Your task to perform on an android device: How big is the moon? Image 0: 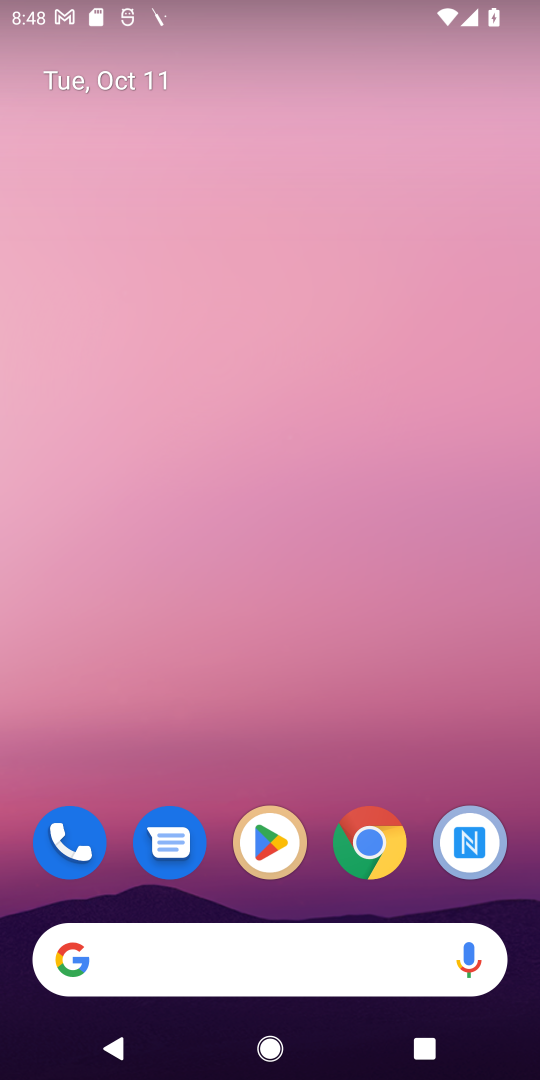
Step 0: click (362, 851)
Your task to perform on an android device: How big is the moon? Image 1: 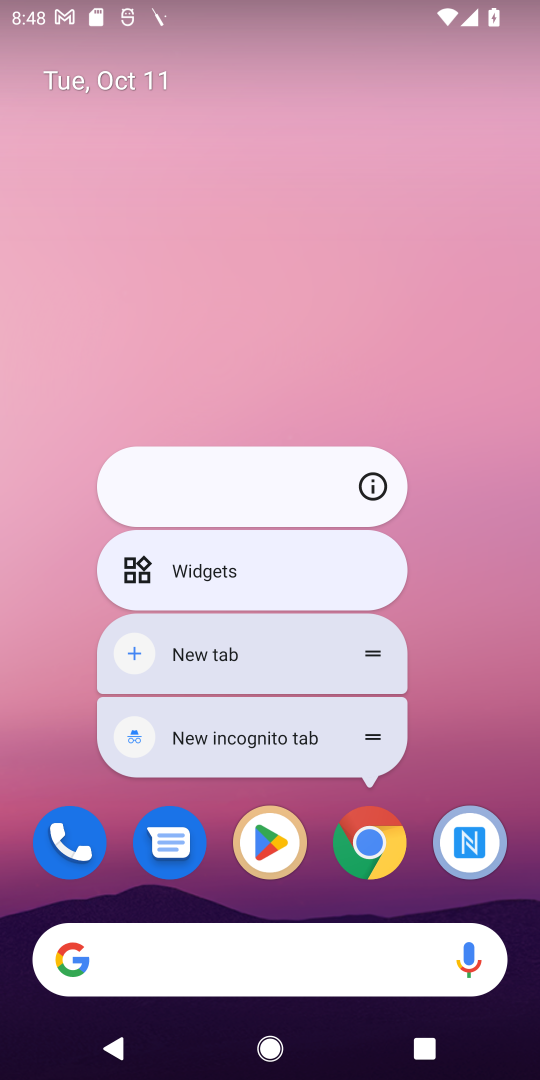
Step 1: click (370, 839)
Your task to perform on an android device: How big is the moon? Image 2: 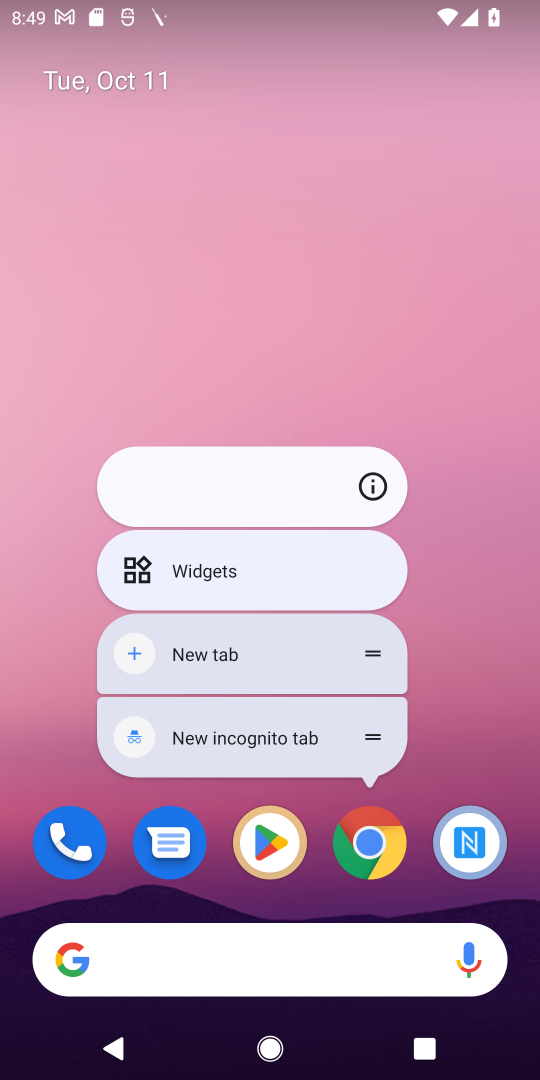
Step 2: click (355, 876)
Your task to perform on an android device: How big is the moon? Image 3: 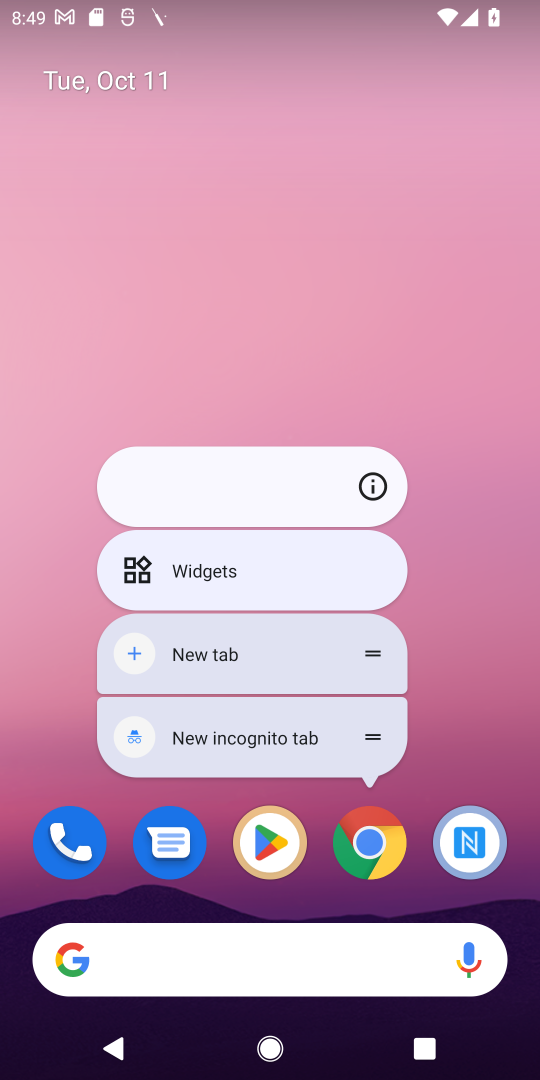
Step 3: click (393, 834)
Your task to perform on an android device: How big is the moon? Image 4: 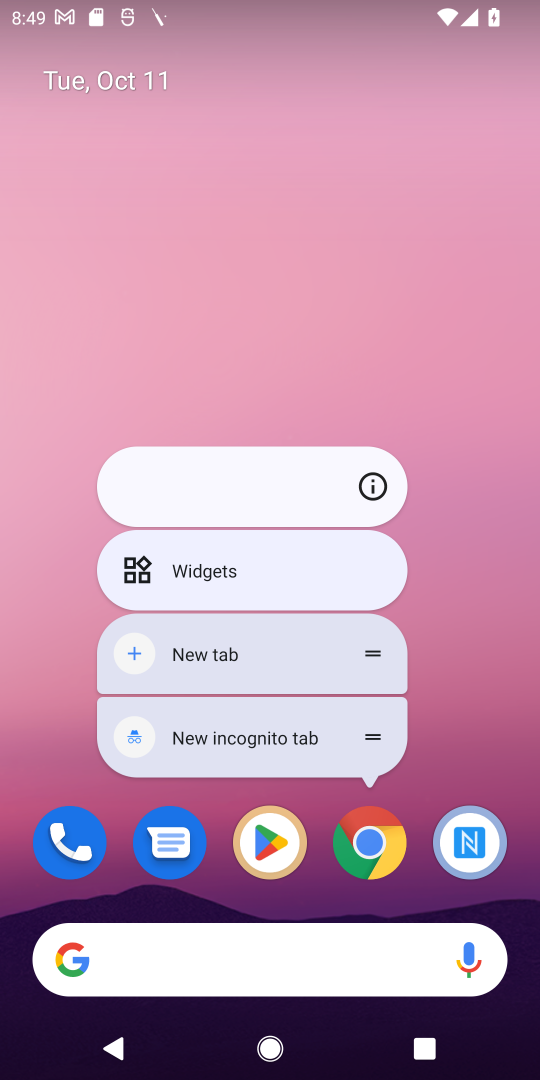
Step 4: press back button
Your task to perform on an android device: How big is the moon? Image 5: 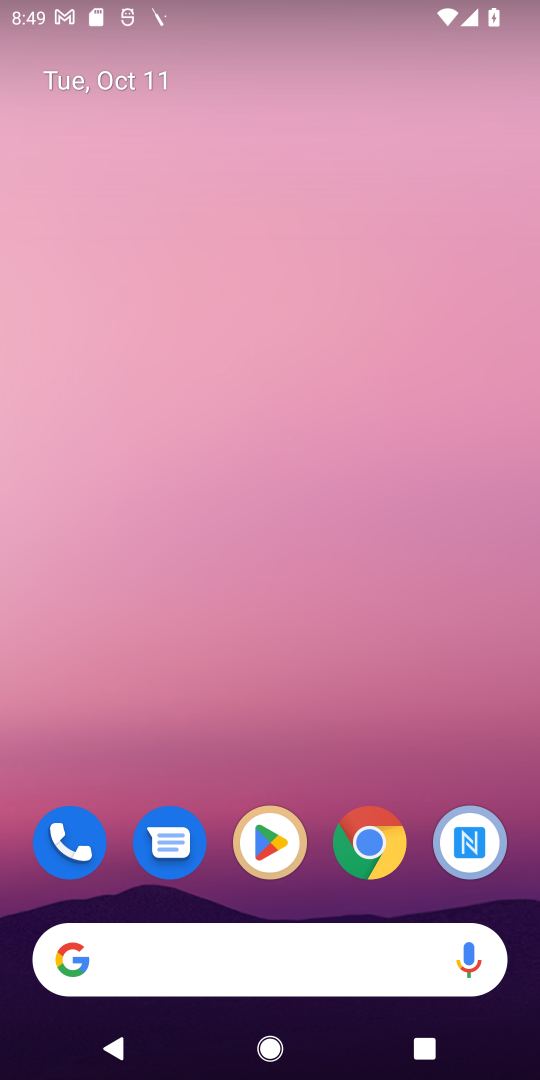
Step 5: press back button
Your task to perform on an android device: How big is the moon? Image 6: 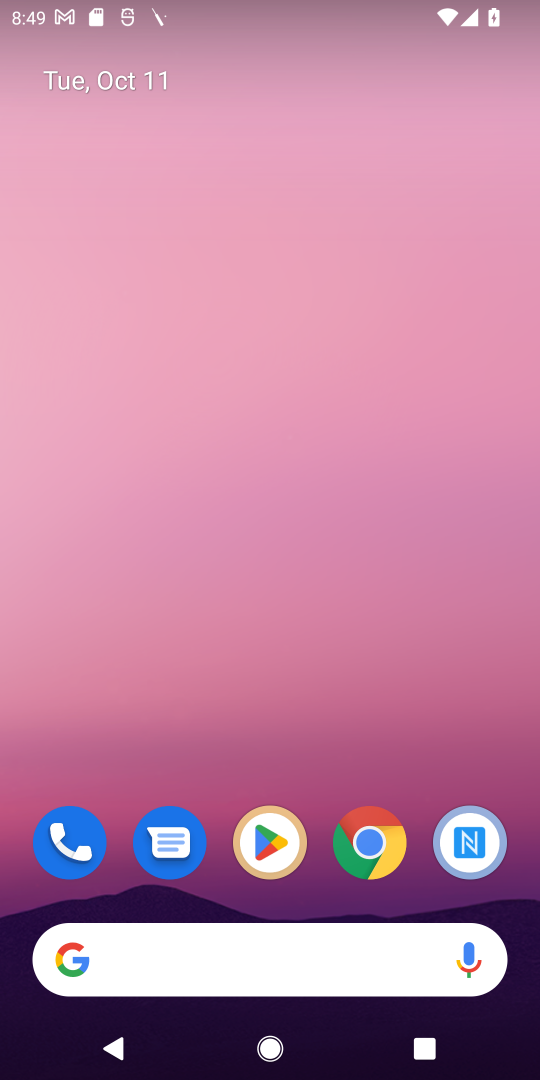
Step 6: click (383, 841)
Your task to perform on an android device: How big is the moon? Image 7: 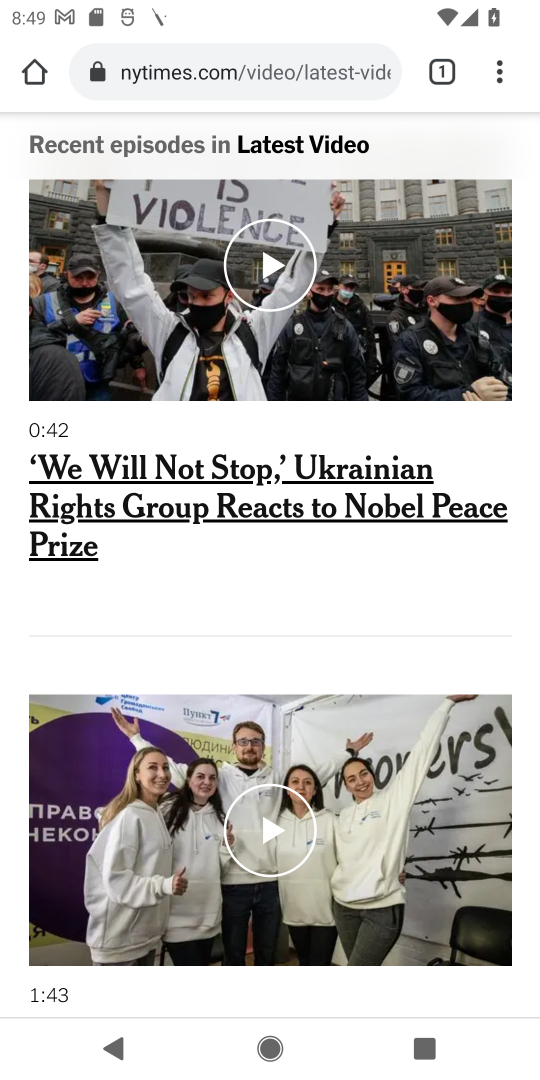
Step 7: click (198, 65)
Your task to perform on an android device: How big is the moon? Image 8: 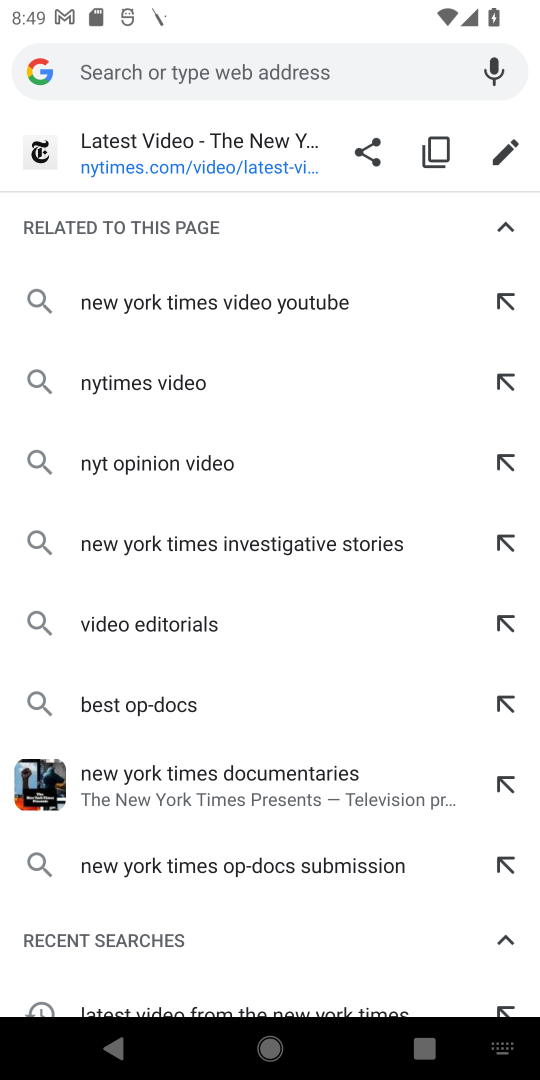
Step 8: type "how big is moon"
Your task to perform on an android device: How big is the moon? Image 9: 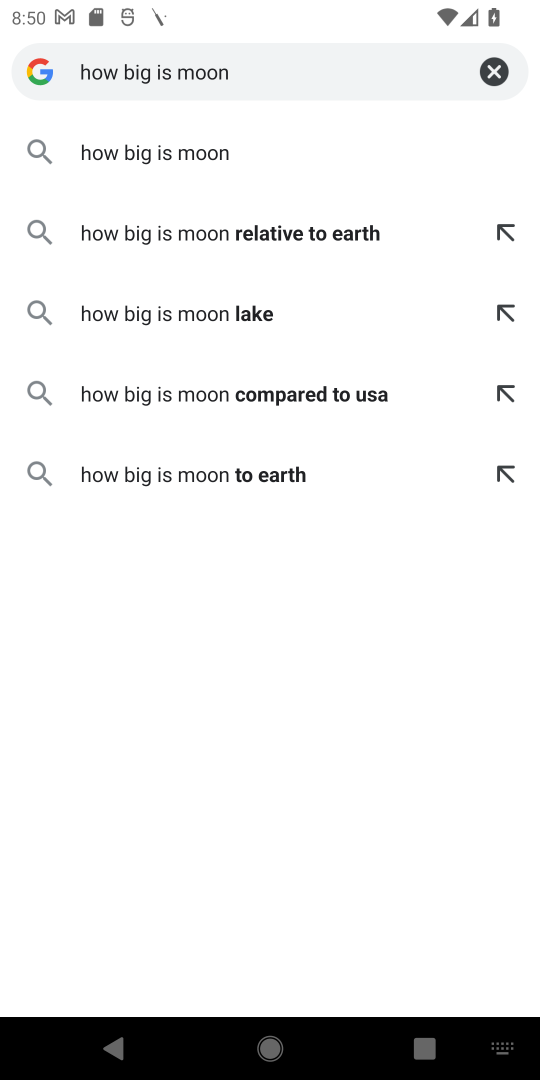
Step 9: click (182, 157)
Your task to perform on an android device: How big is the moon? Image 10: 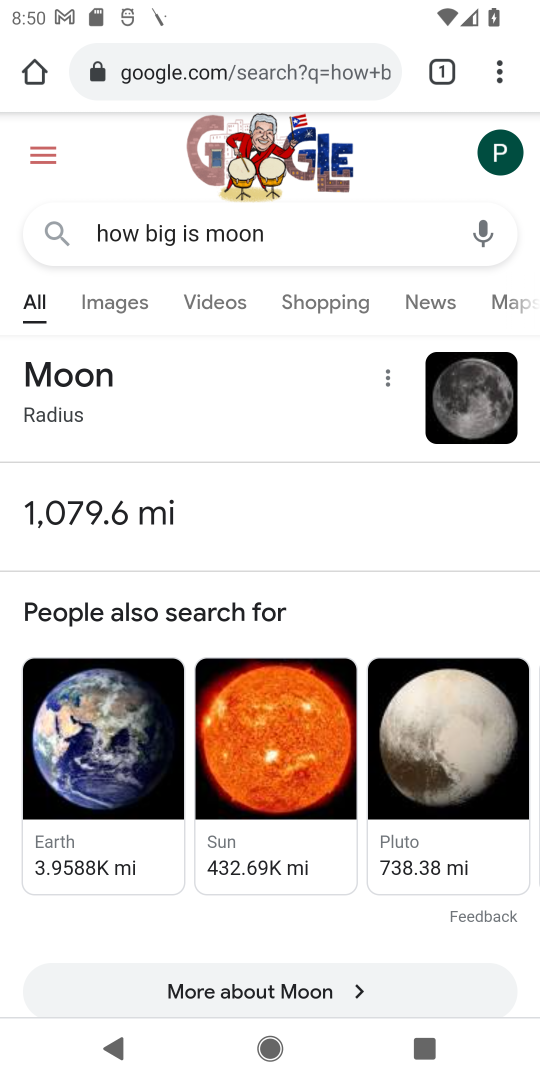
Step 10: drag from (147, 850) to (223, 271)
Your task to perform on an android device: How big is the moon? Image 11: 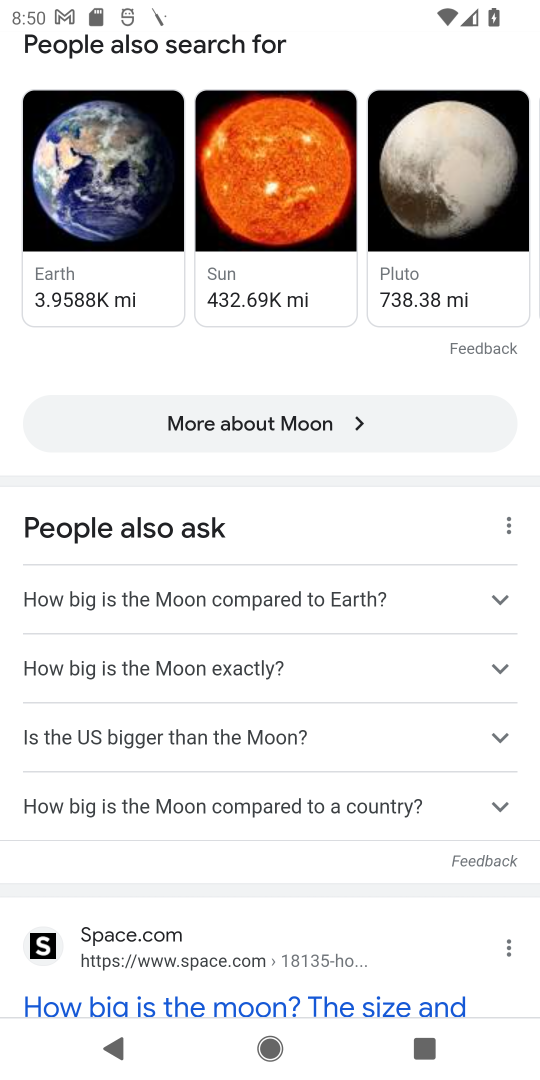
Step 11: click (184, 662)
Your task to perform on an android device: How big is the moon? Image 12: 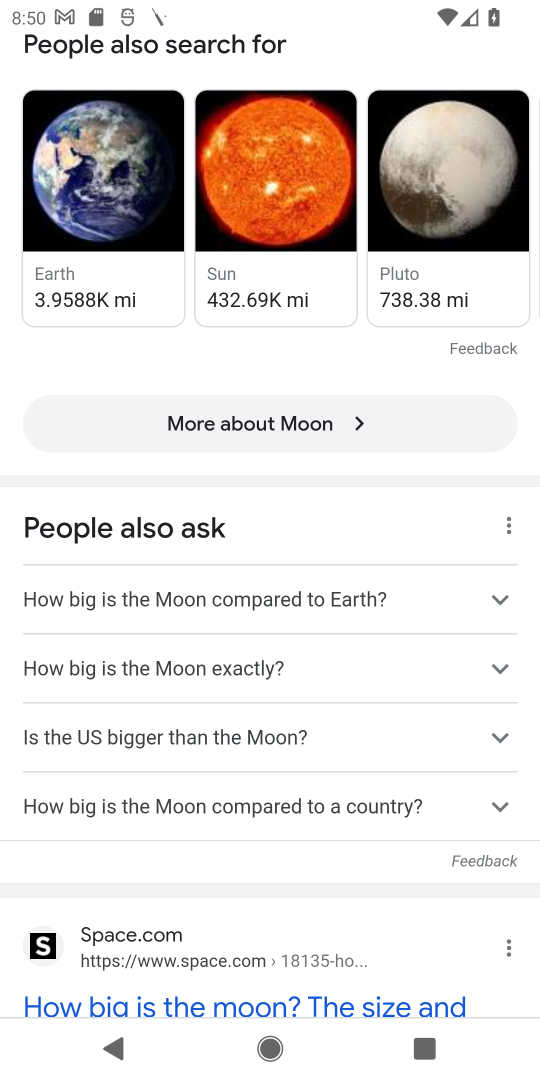
Step 12: drag from (250, 921) to (346, 178)
Your task to perform on an android device: How big is the moon? Image 13: 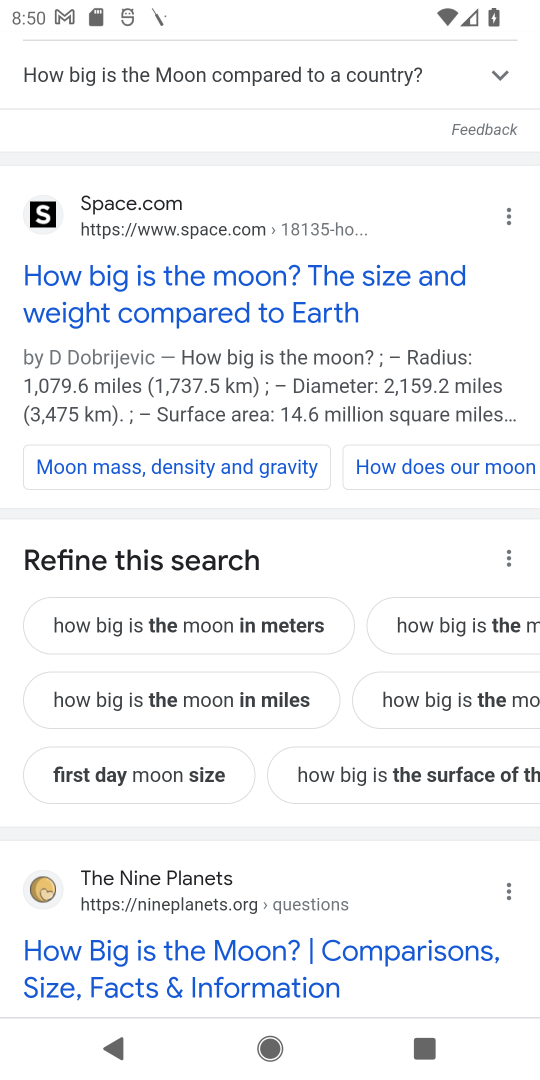
Step 13: click (206, 273)
Your task to perform on an android device: How big is the moon? Image 14: 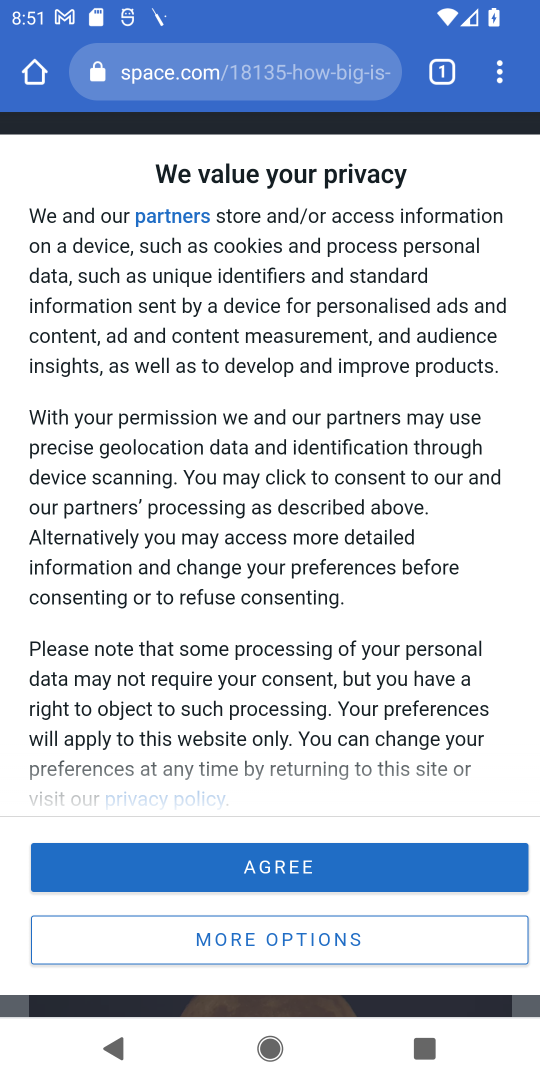
Step 14: click (268, 864)
Your task to perform on an android device: How big is the moon? Image 15: 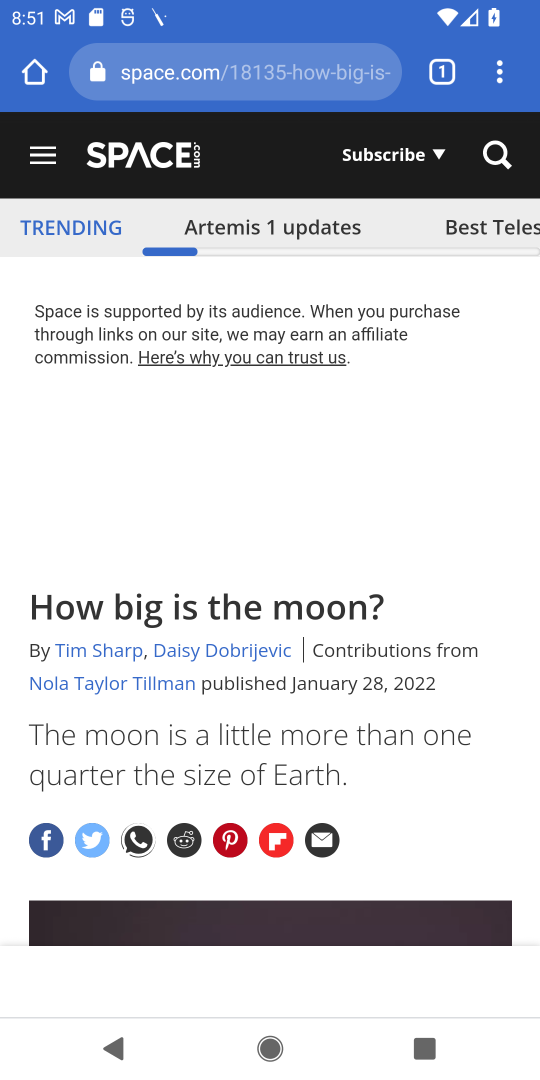
Step 15: drag from (143, 784) to (368, 315)
Your task to perform on an android device: How big is the moon? Image 16: 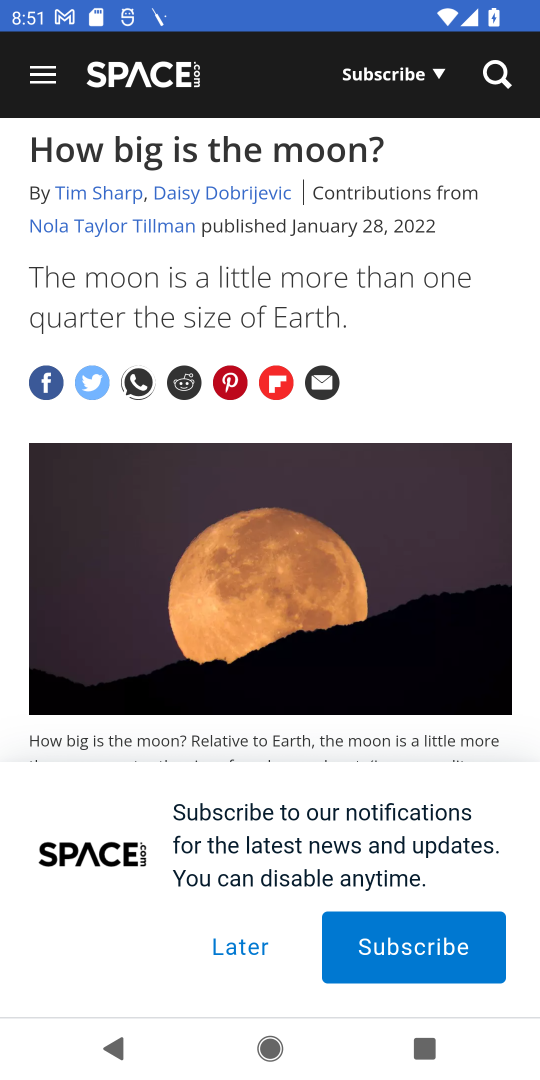
Step 16: drag from (155, 658) to (268, 333)
Your task to perform on an android device: How big is the moon? Image 17: 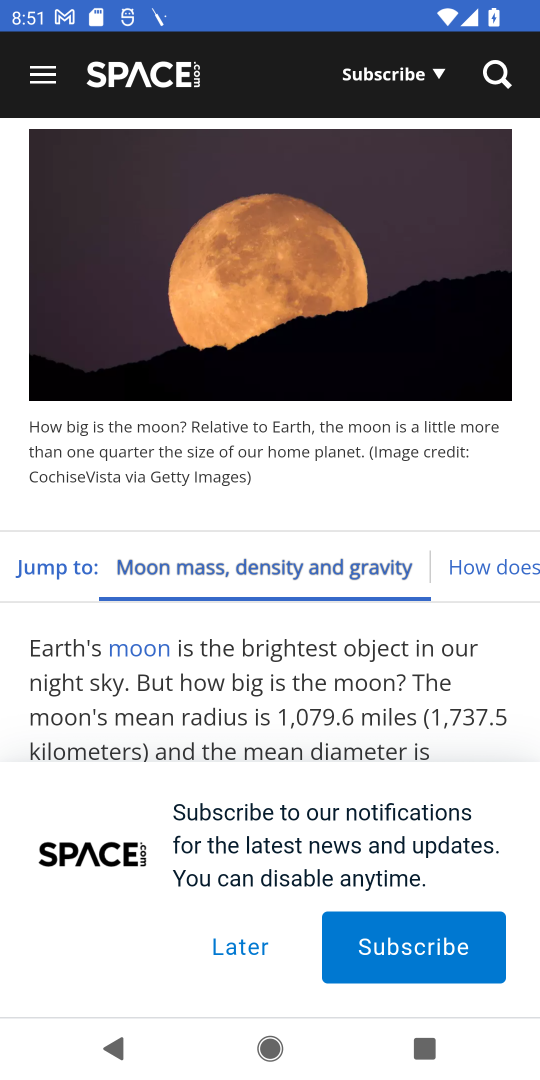
Step 17: click (231, 948)
Your task to perform on an android device: How big is the moon? Image 18: 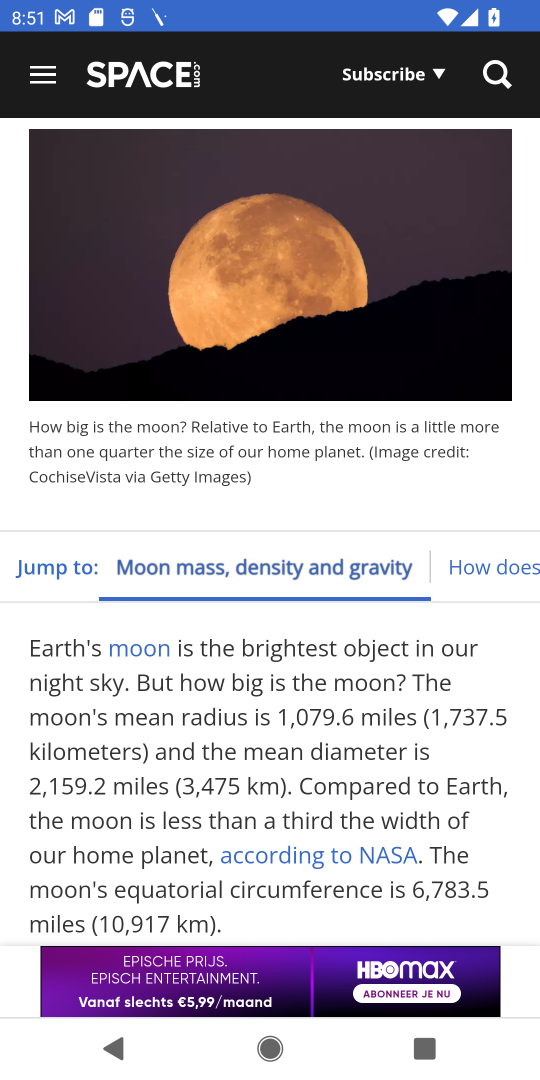
Step 18: task complete